Your task to perform on an android device: Search for pizza restaurants on Maps Image 0: 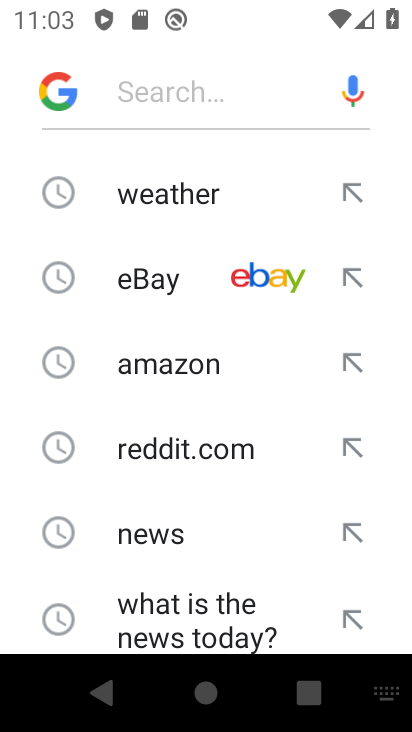
Step 0: press home button
Your task to perform on an android device: Search for pizza restaurants on Maps Image 1: 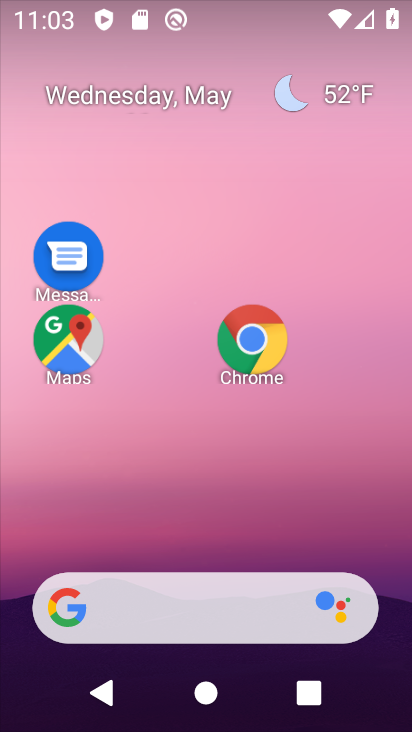
Step 1: click (72, 341)
Your task to perform on an android device: Search for pizza restaurants on Maps Image 2: 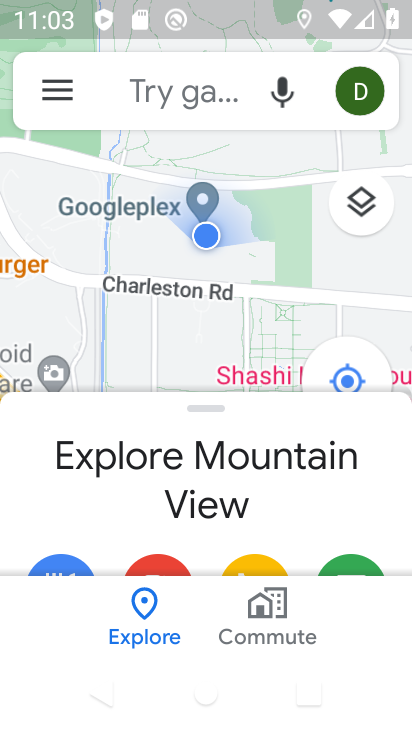
Step 2: click (153, 90)
Your task to perform on an android device: Search for pizza restaurants on Maps Image 3: 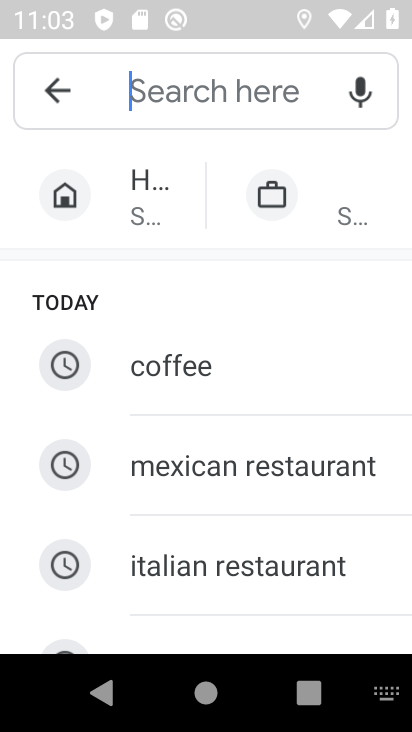
Step 3: drag from (261, 475) to (231, 252)
Your task to perform on an android device: Search for pizza restaurants on Maps Image 4: 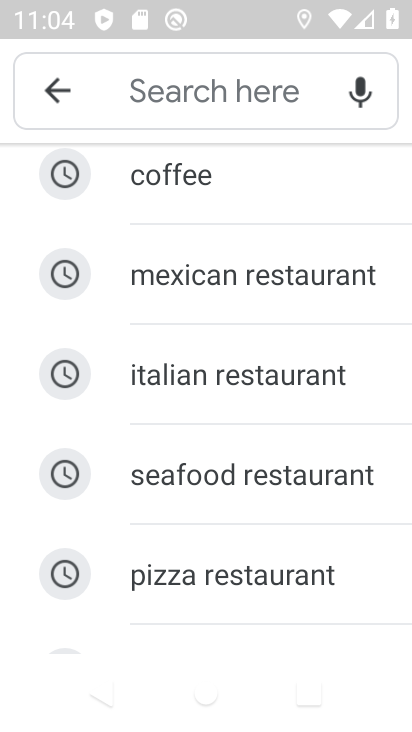
Step 4: click (201, 566)
Your task to perform on an android device: Search for pizza restaurants on Maps Image 5: 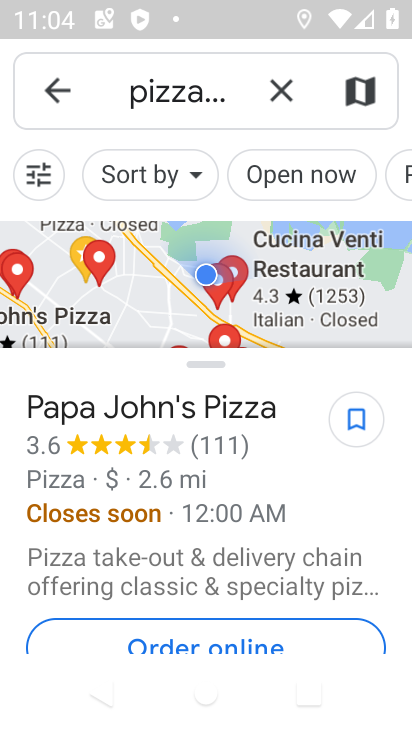
Step 5: task complete